Your task to perform on an android device: What's the weather going to be this weekend? Image 0: 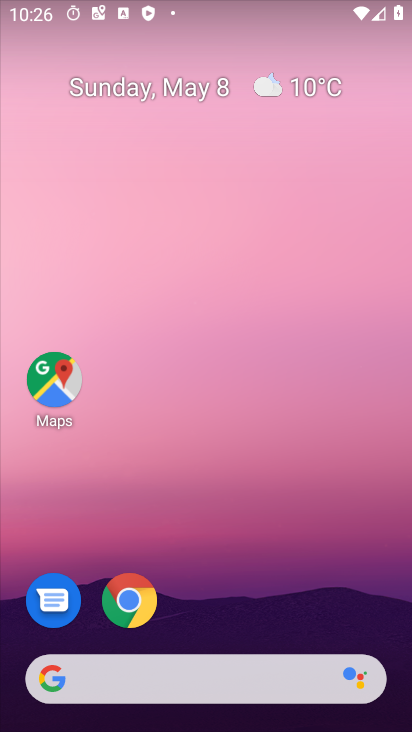
Step 0: drag from (213, 429) to (212, 5)
Your task to perform on an android device: What's the weather going to be this weekend? Image 1: 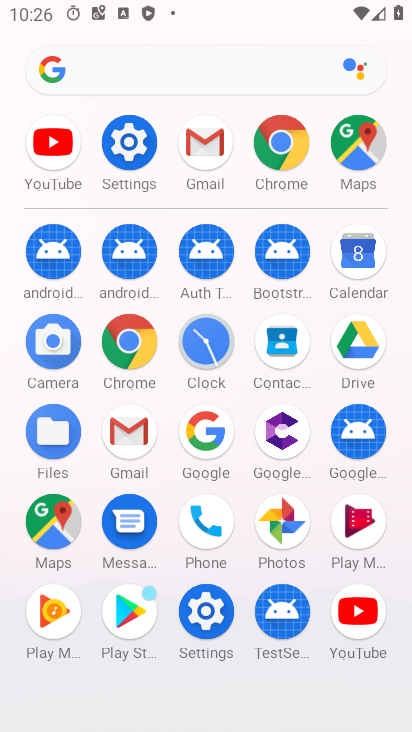
Step 1: click (215, 442)
Your task to perform on an android device: What's the weather going to be this weekend? Image 2: 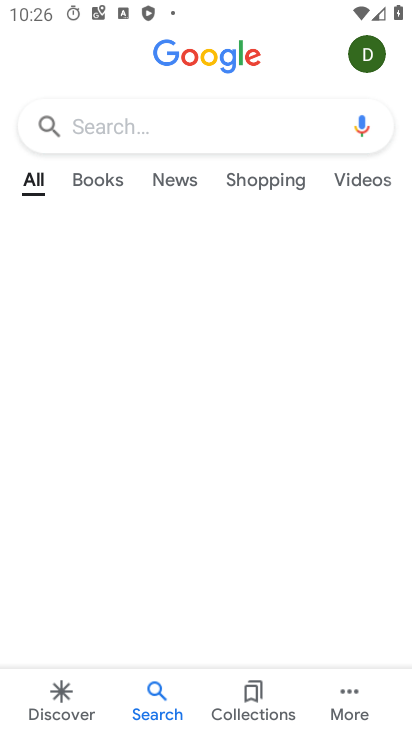
Step 2: click (196, 111)
Your task to perform on an android device: What's the weather going to be this weekend? Image 3: 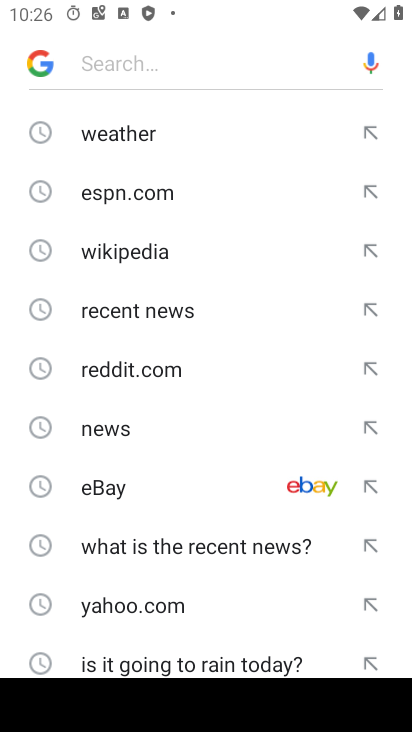
Step 3: click (182, 117)
Your task to perform on an android device: What's the weather going to be this weekend? Image 4: 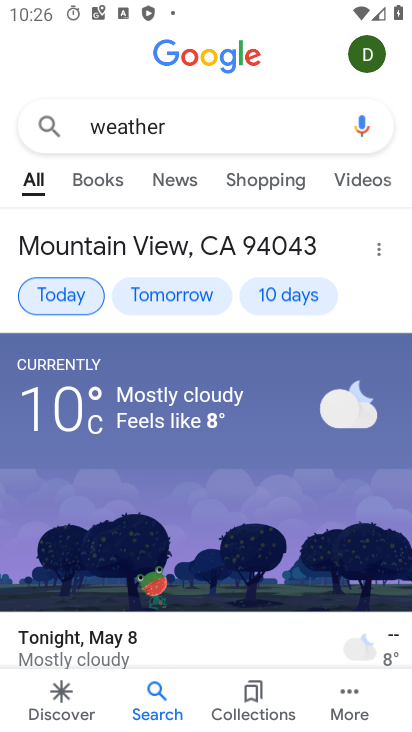
Step 4: click (279, 291)
Your task to perform on an android device: What's the weather going to be this weekend? Image 5: 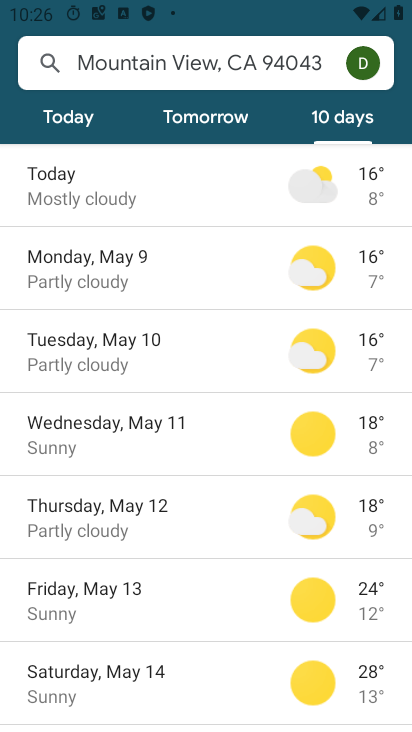
Step 5: task complete